Your task to perform on an android device: turn on bluetooth scan Image 0: 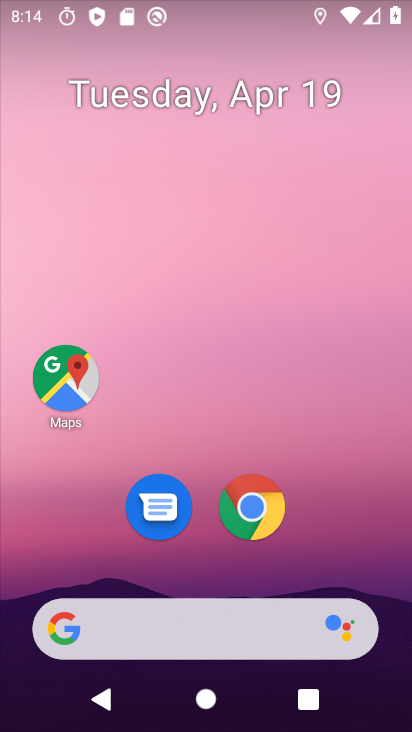
Step 0: drag from (323, 547) to (270, 159)
Your task to perform on an android device: turn on bluetooth scan Image 1: 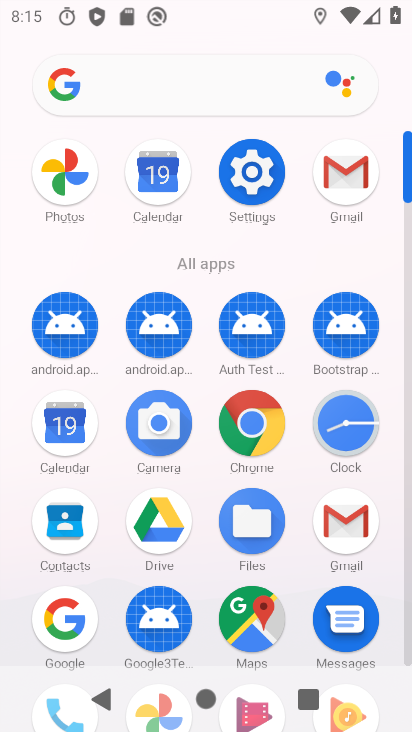
Step 1: click (253, 183)
Your task to perform on an android device: turn on bluetooth scan Image 2: 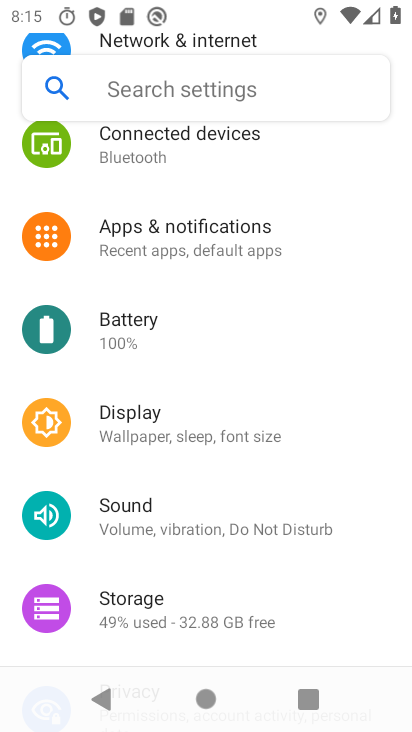
Step 2: drag from (166, 632) to (164, 263)
Your task to perform on an android device: turn on bluetooth scan Image 3: 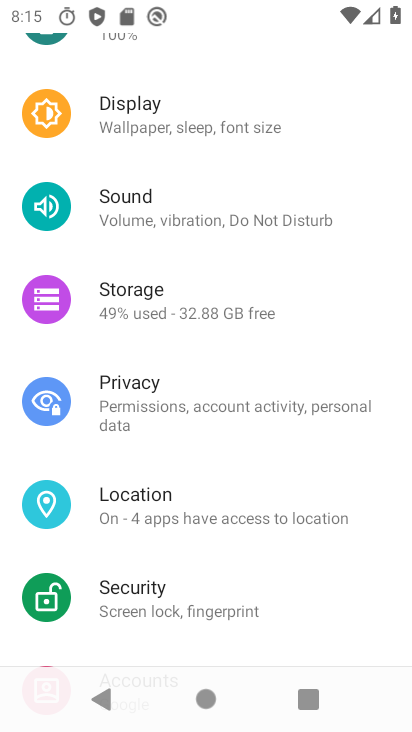
Step 3: click (202, 500)
Your task to perform on an android device: turn on bluetooth scan Image 4: 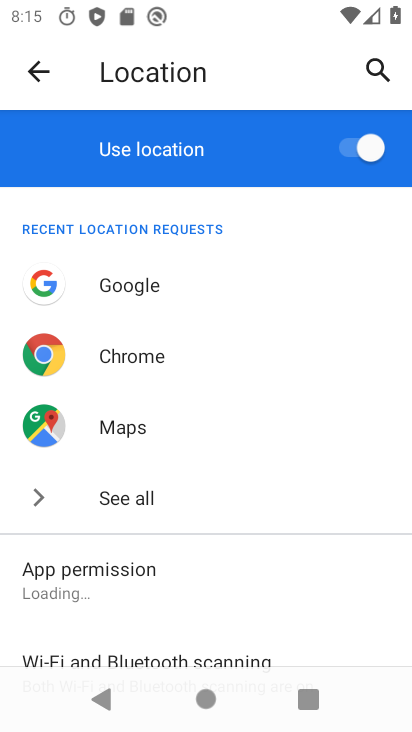
Step 4: drag from (156, 604) to (147, 316)
Your task to perform on an android device: turn on bluetooth scan Image 5: 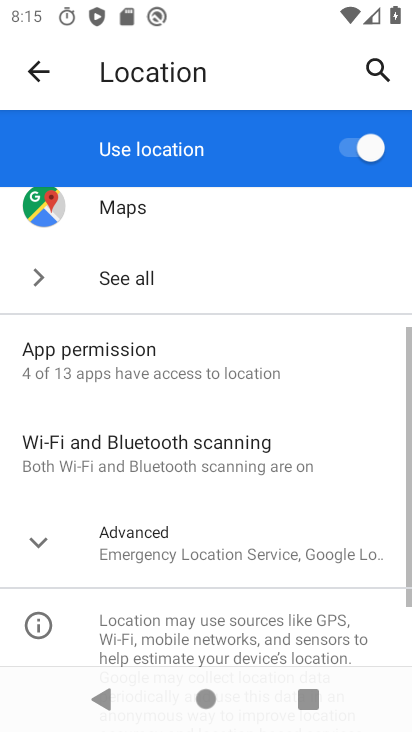
Step 5: click (150, 456)
Your task to perform on an android device: turn on bluetooth scan Image 6: 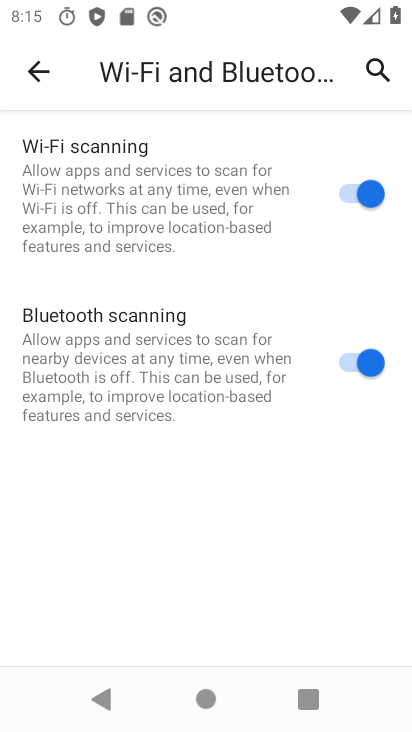
Step 6: task complete